Your task to perform on an android device: Show me the alarms in the clock app Image 0: 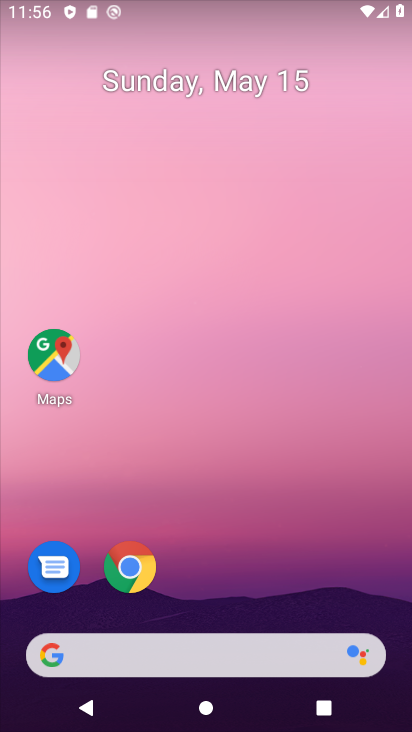
Step 0: drag from (231, 587) to (241, 1)
Your task to perform on an android device: Show me the alarms in the clock app Image 1: 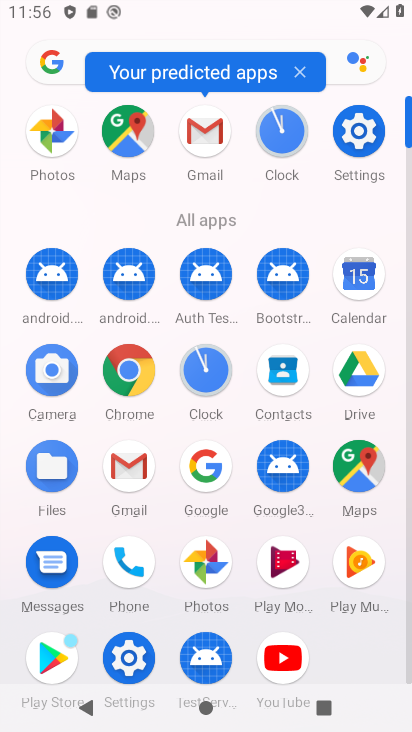
Step 1: click (287, 136)
Your task to perform on an android device: Show me the alarms in the clock app Image 2: 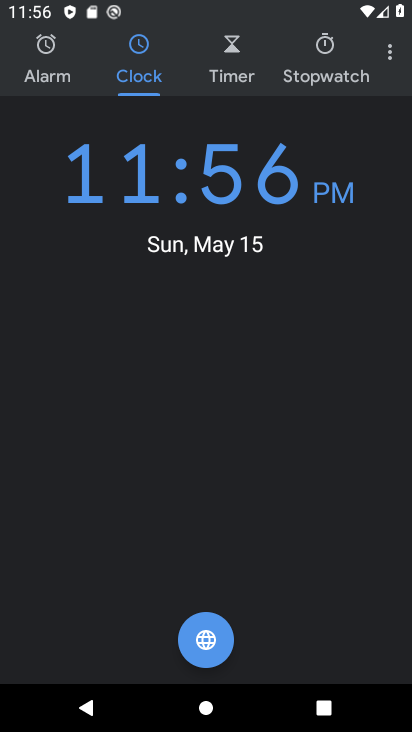
Step 2: click (47, 68)
Your task to perform on an android device: Show me the alarms in the clock app Image 3: 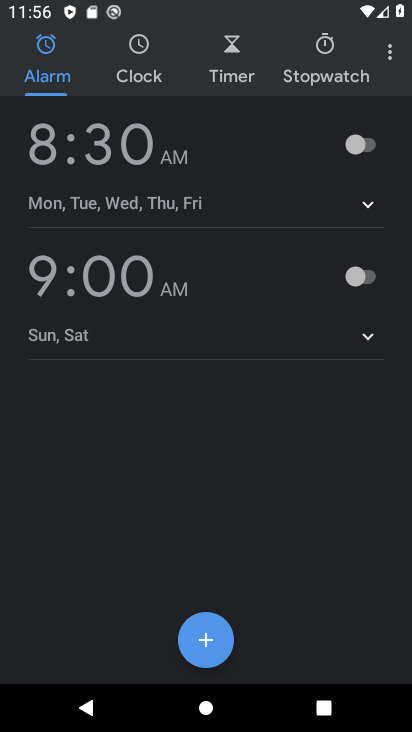
Step 3: task complete